Your task to perform on an android device: Show the shopping cart on ebay. Image 0: 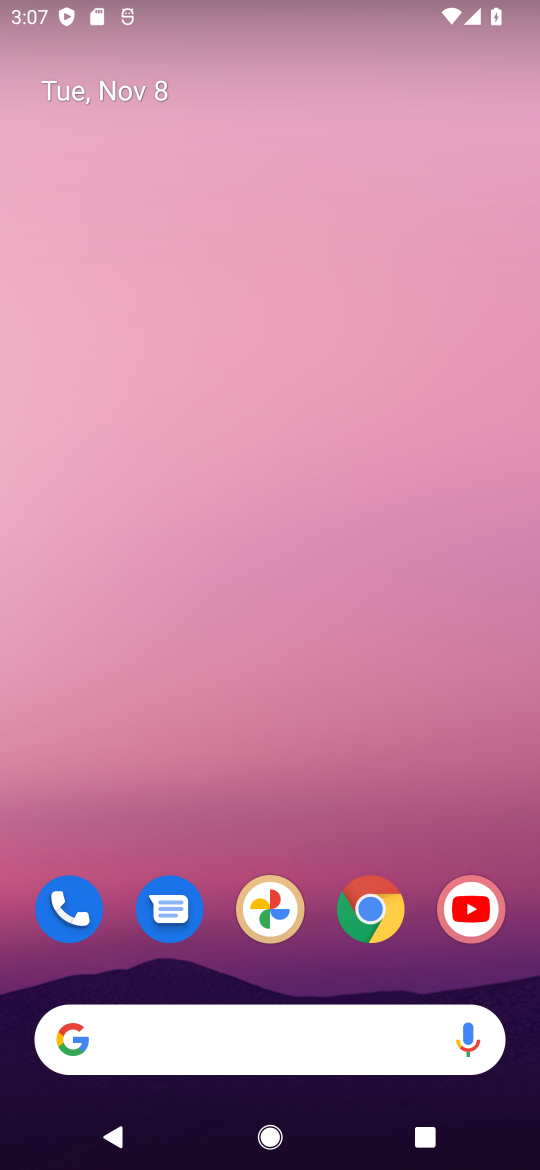
Step 0: click (371, 906)
Your task to perform on an android device: Show the shopping cart on ebay. Image 1: 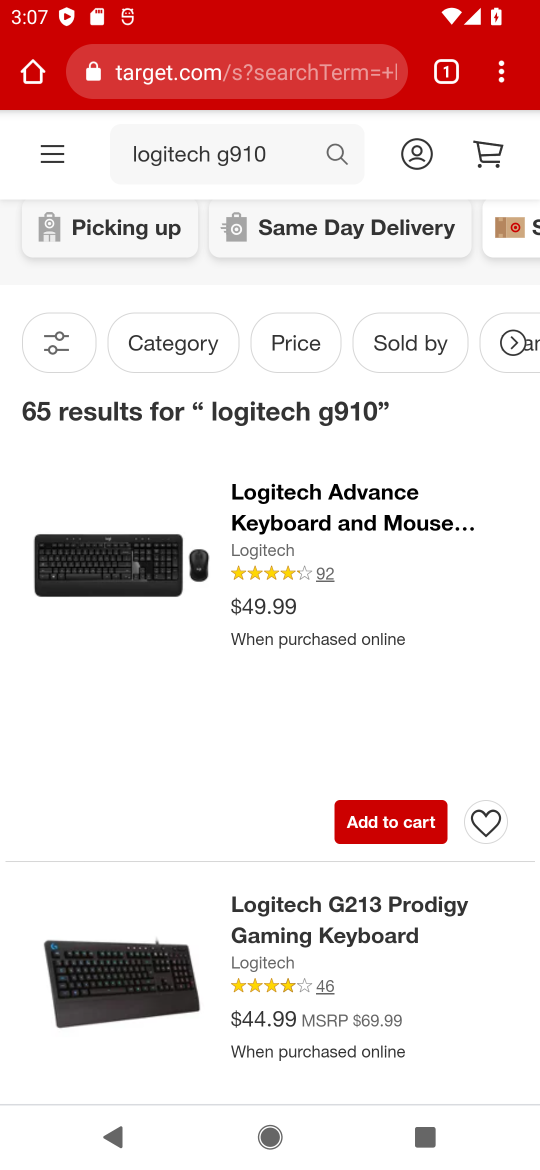
Step 1: click (264, 80)
Your task to perform on an android device: Show the shopping cart on ebay. Image 2: 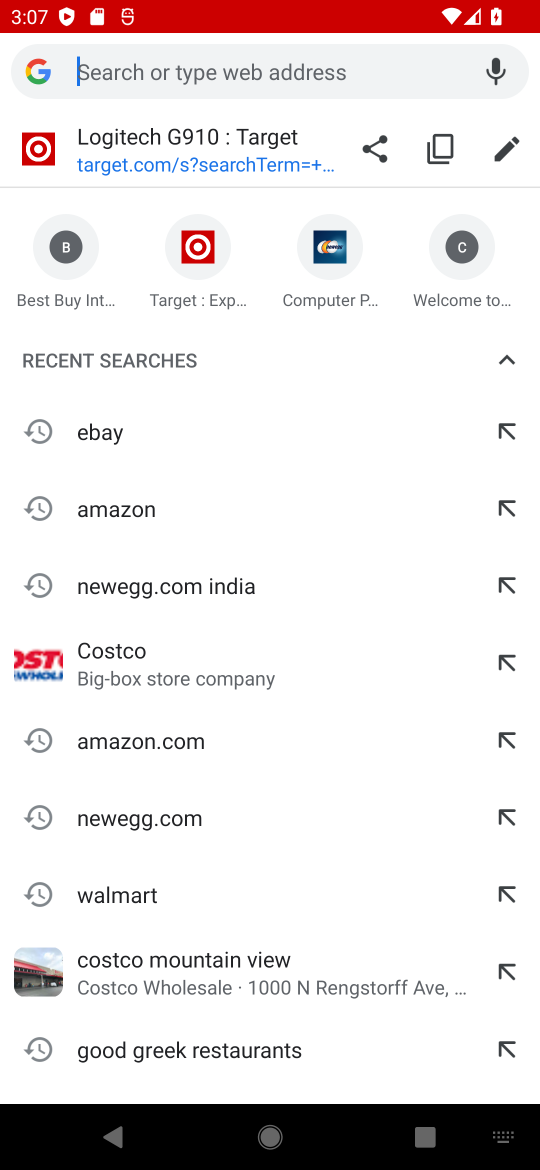
Step 2: press enter
Your task to perform on an android device: Show the shopping cart on ebay. Image 3: 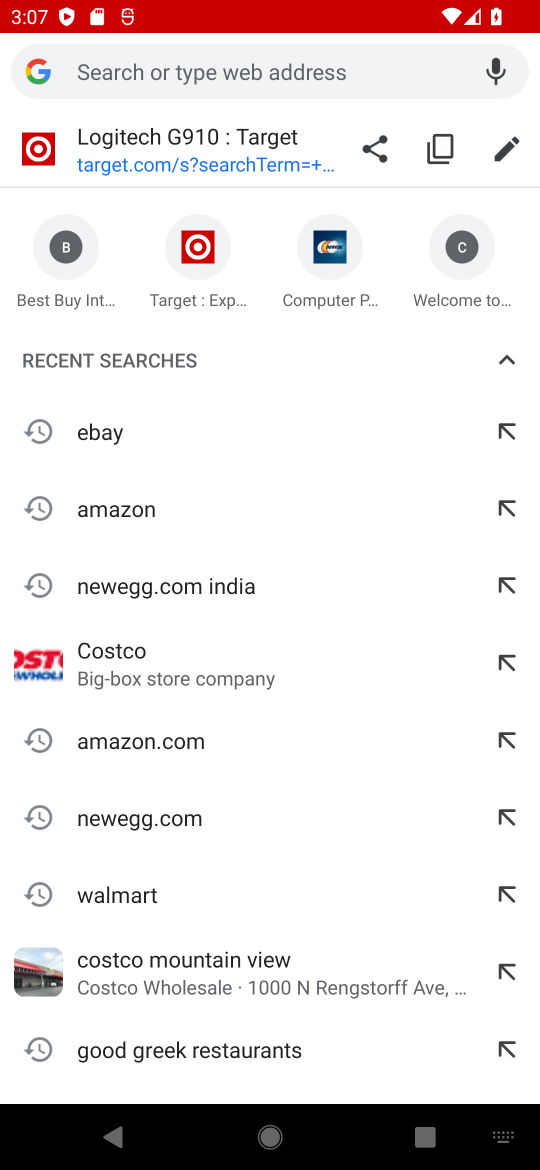
Step 3: type "ebay"
Your task to perform on an android device: Show the shopping cart on ebay. Image 4: 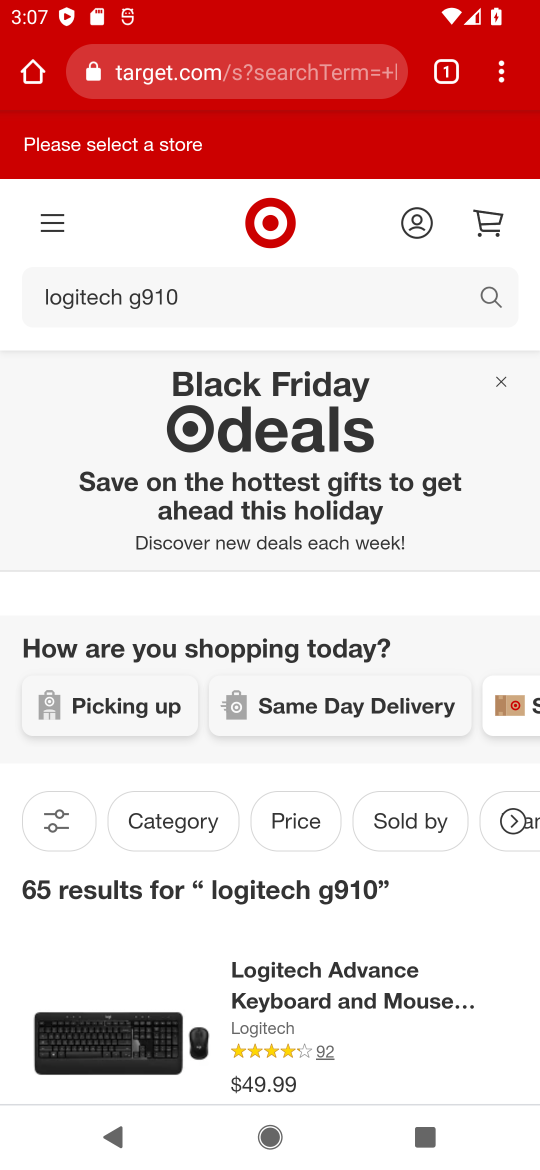
Step 4: click (259, 63)
Your task to perform on an android device: Show the shopping cart on ebay. Image 5: 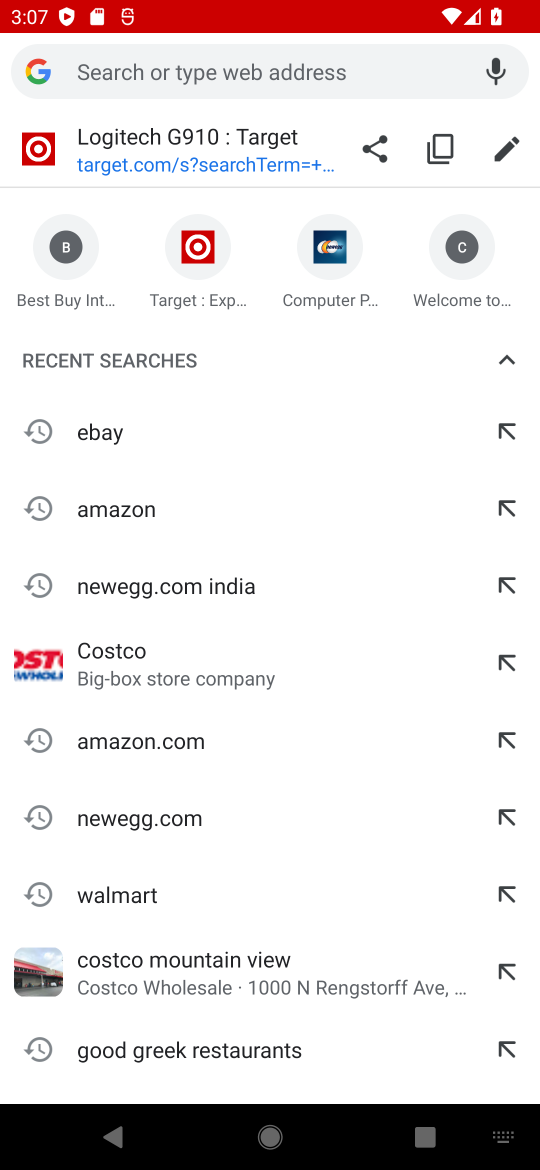
Step 5: type "ebay"
Your task to perform on an android device: Show the shopping cart on ebay. Image 6: 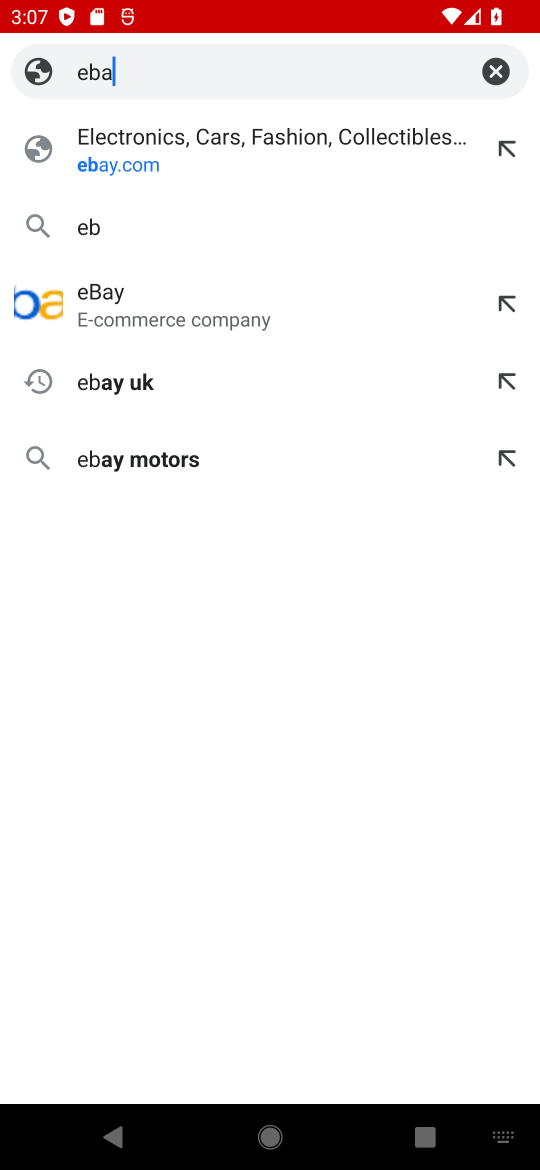
Step 6: press enter
Your task to perform on an android device: Show the shopping cart on ebay. Image 7: 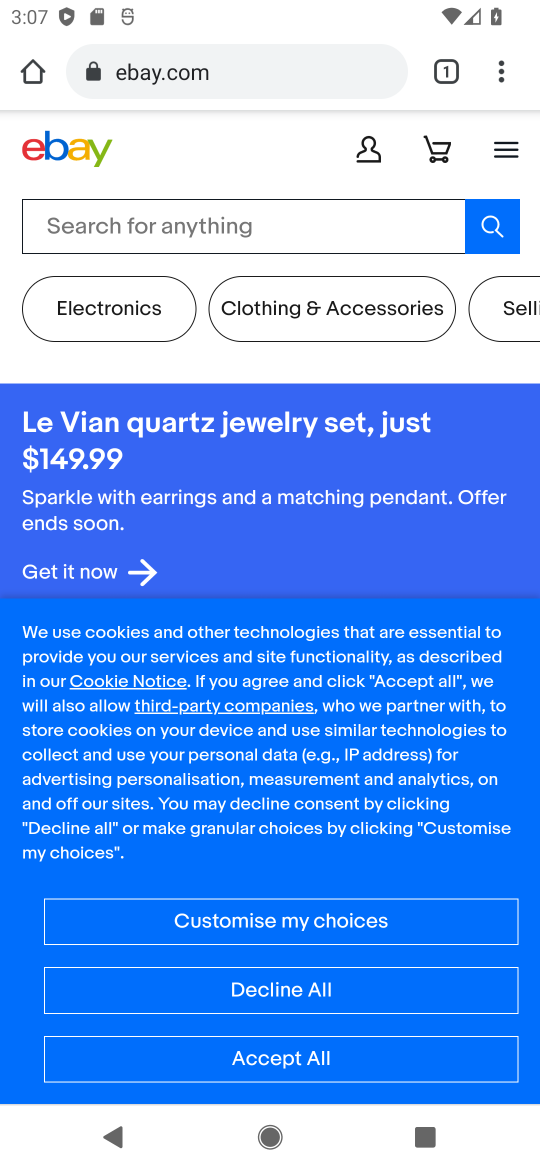
Step 7: click (324, 1052)
Your task to perform on an android device: Show the shopping cart on ebay. Image 8: 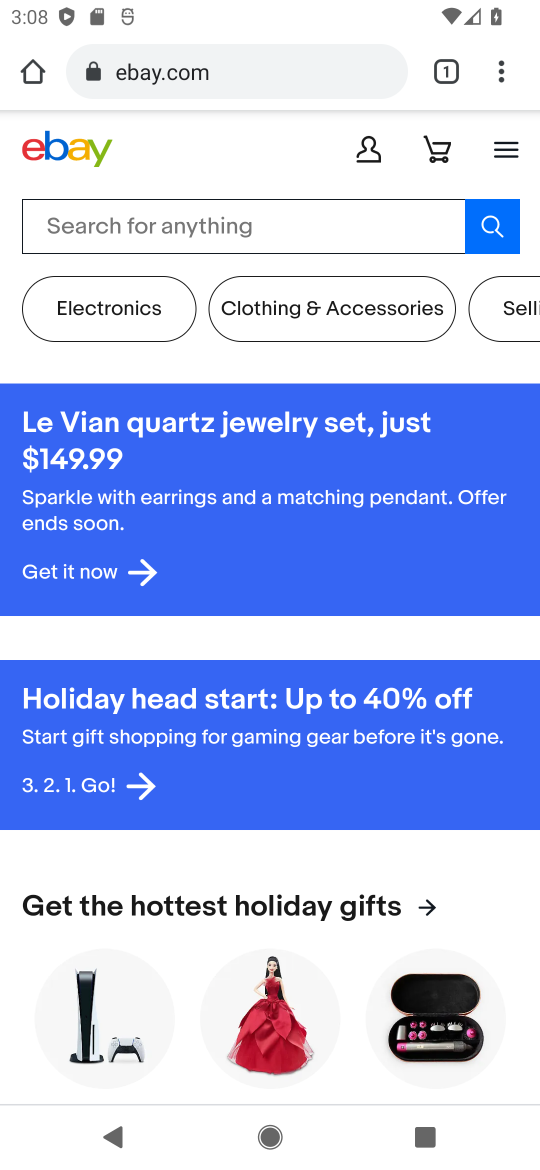
Step 8: click (442, 149)
Your task to perform on an android device: Show the shopping cart on ebay. Image 9: 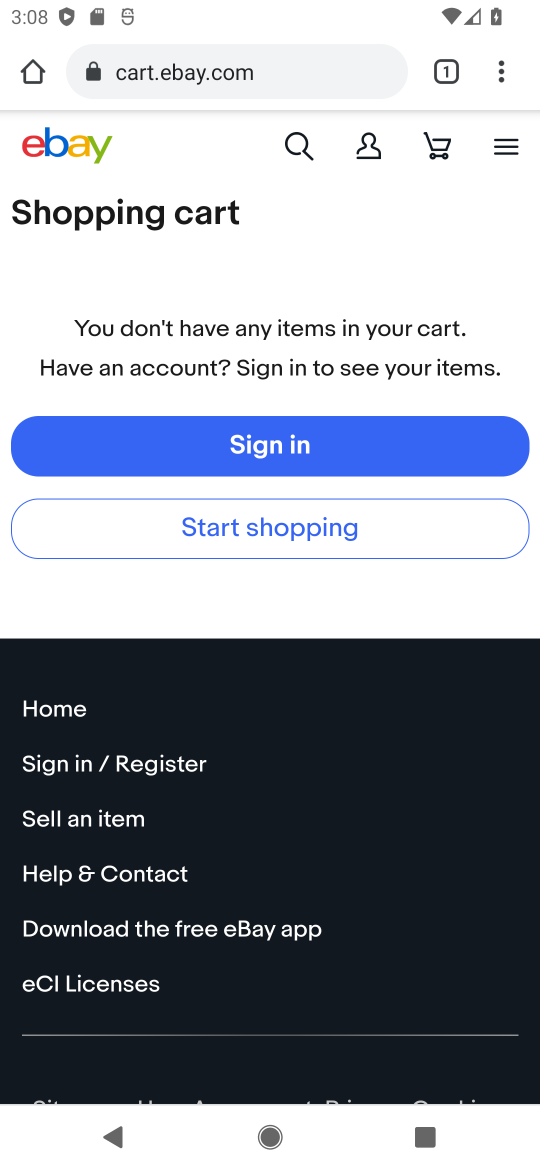
Step 9: task complete